Your task to perform on an android device: allow notifications from all sites in the chrome app Image 0: 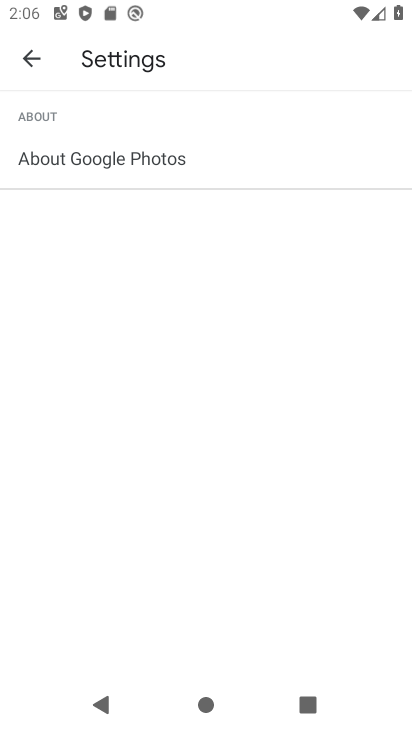
Step 0: press home button
Your task to perform on an android device: allow notifications from all sites in the chrome app Image 1: 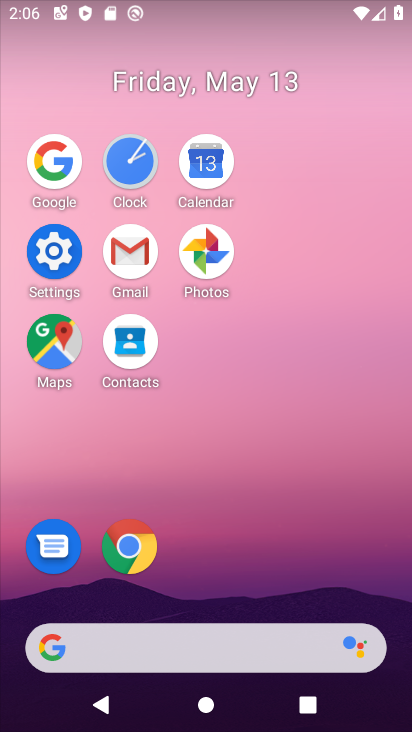
Step 1: click (100, 582)
Your task to perform on an android device: allow notifications from all sites in the chrome app Image 2: 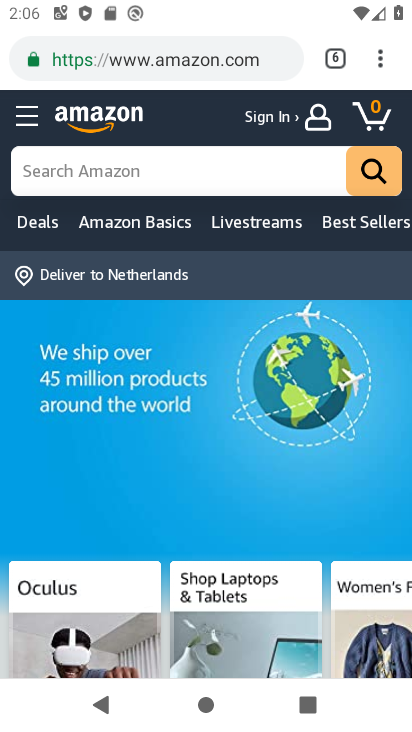
Step 2: click (390, 56)
Your task to perform on an android device: allow notifications from all sites in the chrome app Image 3: 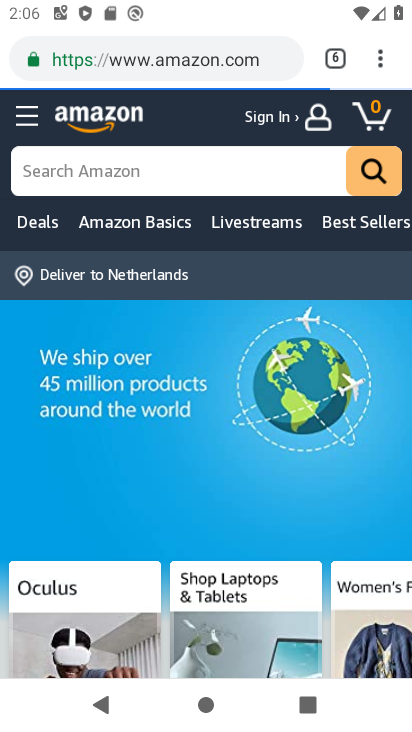
Step 3: click (384, 55)
Your task to perform on an android device: allow notifications from all sites in the chrome app Image 4: 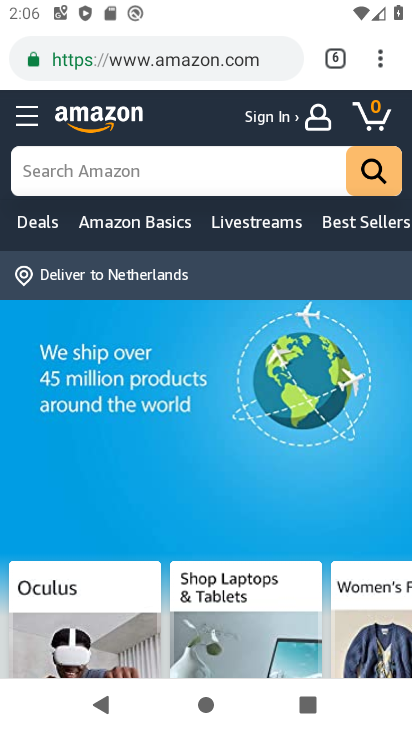
Step 4: click (380, 43)
Your task to perform on an android device: allow notifications from all sites in the chrome app Image 5: 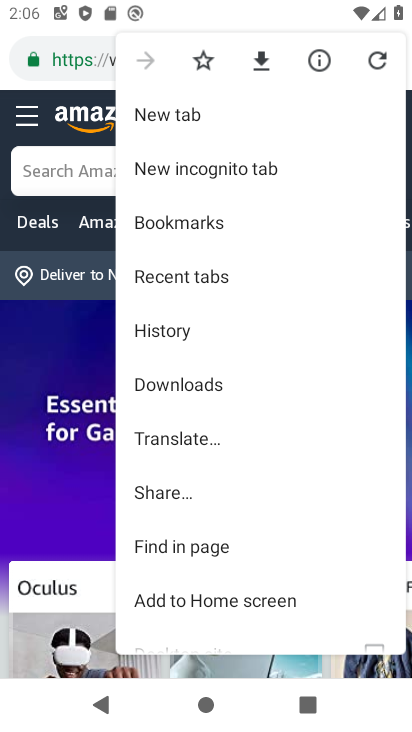
Step 5: drag from (240, 485) to (286, 188)
Your task to perform on an android device: allow notifications from all sites in the chrome app Image 6: 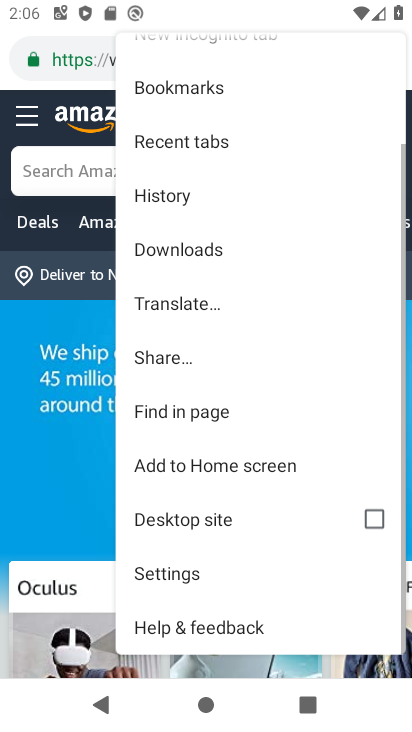
Step 6: click (157, 575)
Your task to perform on an android device: allow notifications from all sites in the chrome app Image 7: 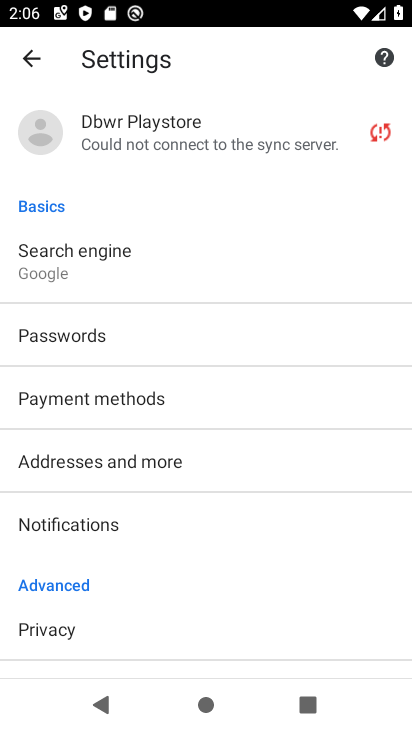
Step 7: click (134, 539)
Your task to perform on an android device: allow notifications from all sites in the chrome app Image 8: 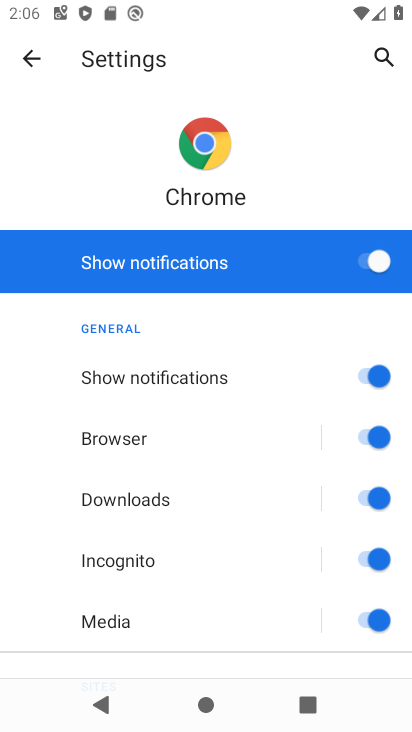
Step 8: task complete